Your task to perform on an android device: Set the phone to "Do not disturb". Image 0: 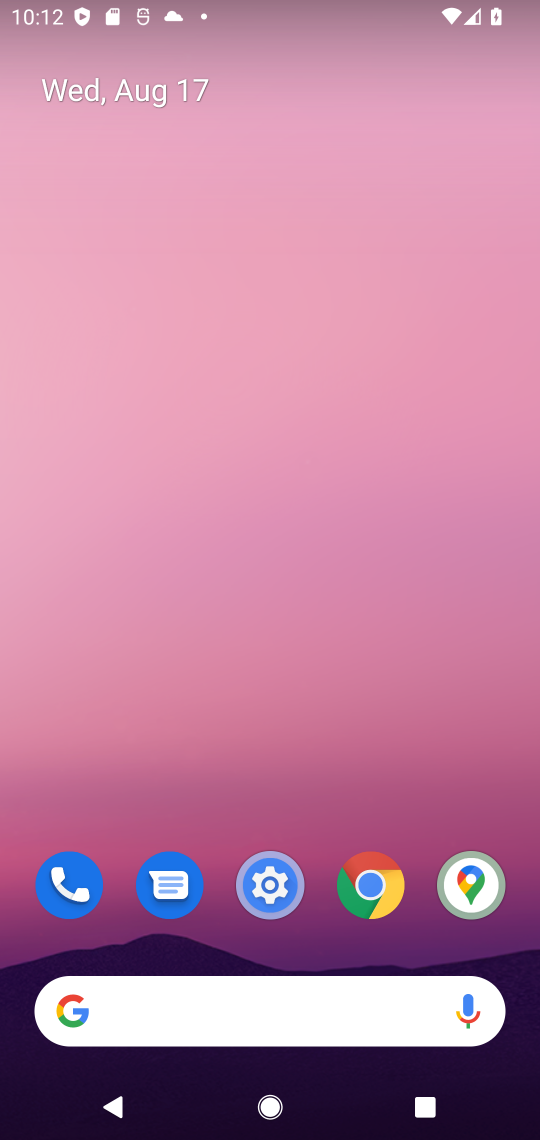
Step 0: click (266, 887)
Your task to perform on an android device: Set the phone to "Do not disturb". Image 1: 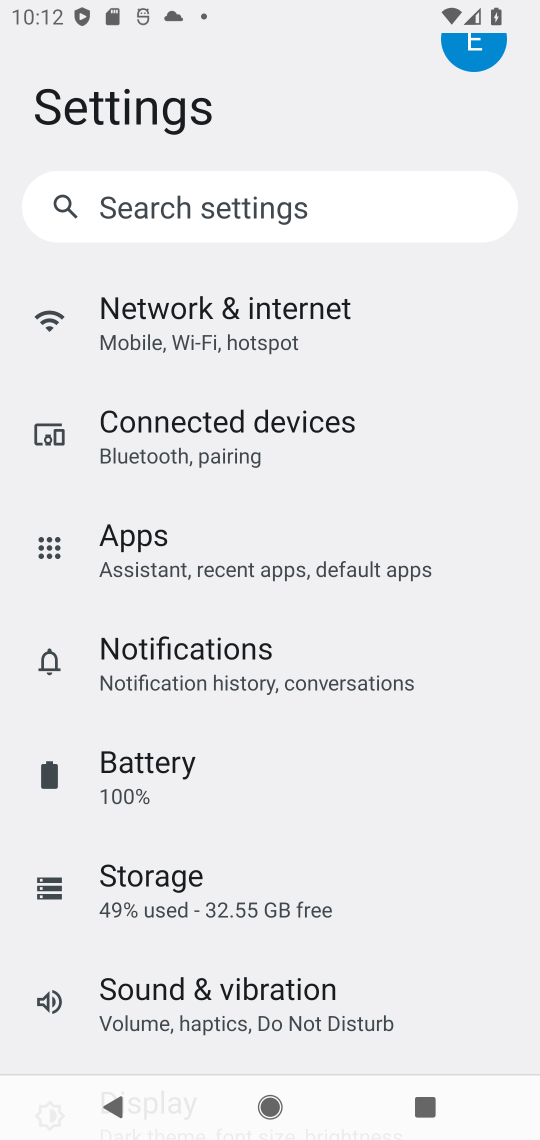
Step 1: drag from (387, 840) to (387, 370)
Your task to perform on an android device: Set the phone to "Do not disturb". Image 2: 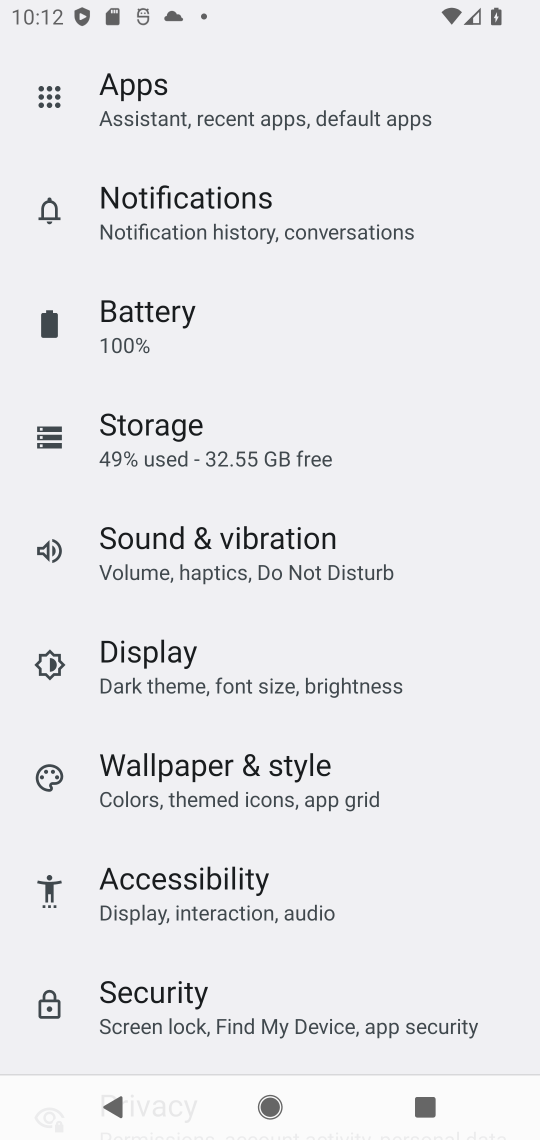
Step 2: click (145, 547)
Your task to perform on an android device: Set the phone to "Do not disturb". Image 3: 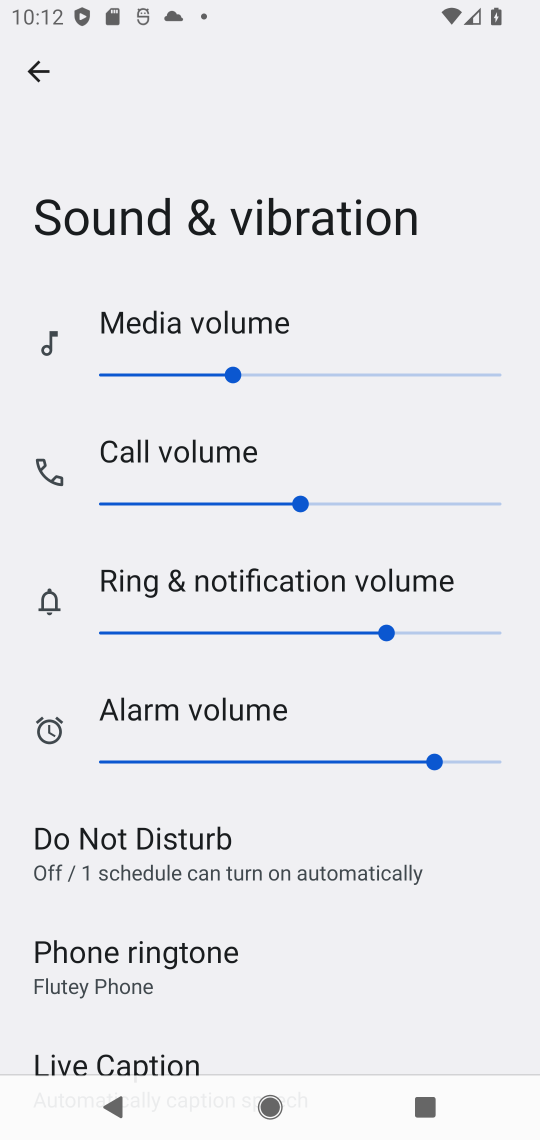
Step 3: click (188, 863)
Your task to perform on an android device: Set the phone to "Do not disturb". Image 4: 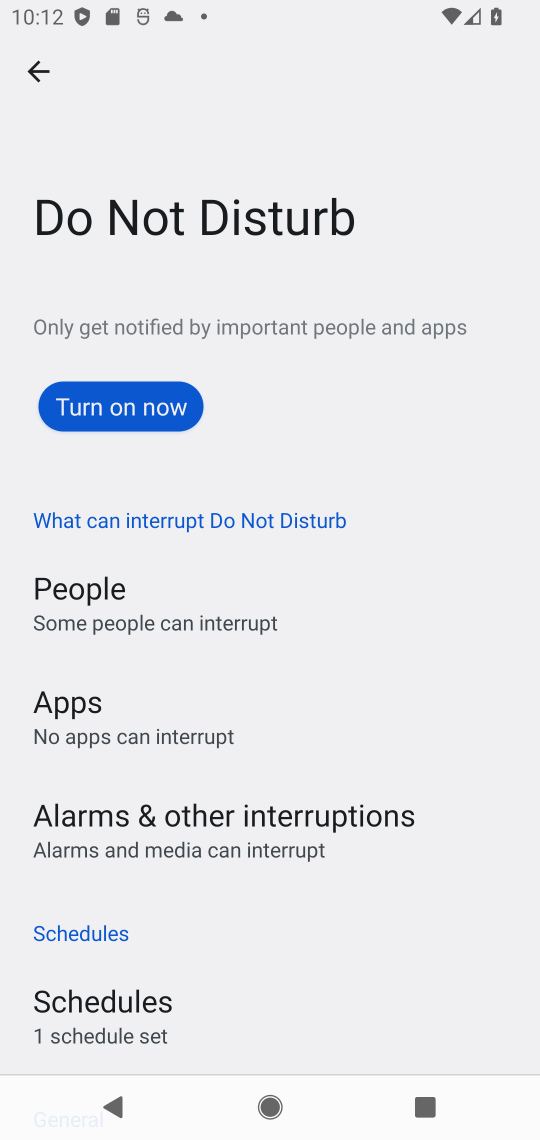
Step 4: click (107, 397)
Your task to perform on an android device: Set the phone to "Do not disturb". Image 5: 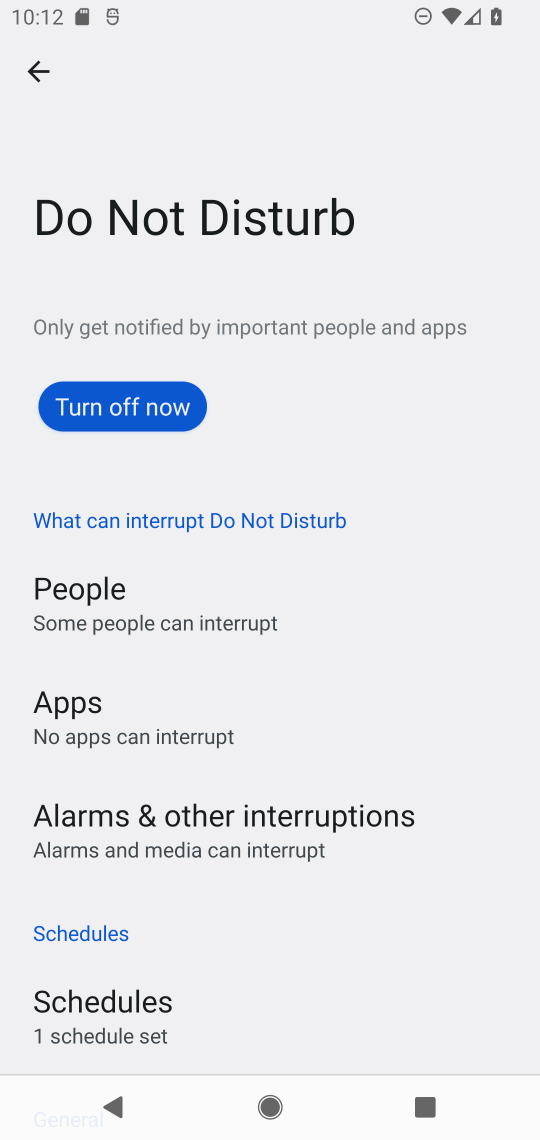
Step 5: task complete